Your task to perform on an android device: empty trash in google photos Image 0: 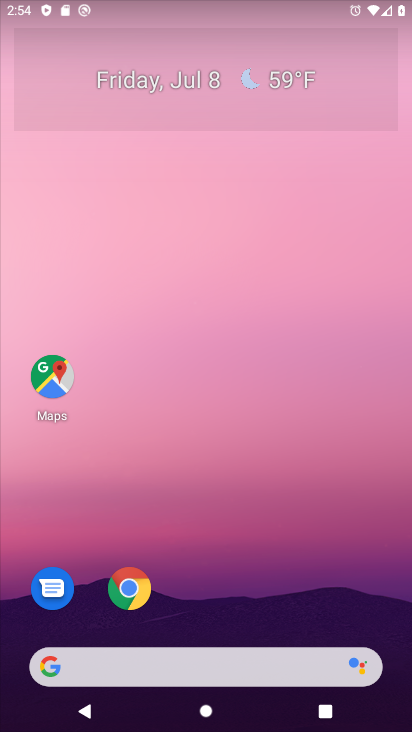
Step 0: drag from (265, 607) to (331, 192)
Your task to perform on an android device: empty trash in google photos Image 1: 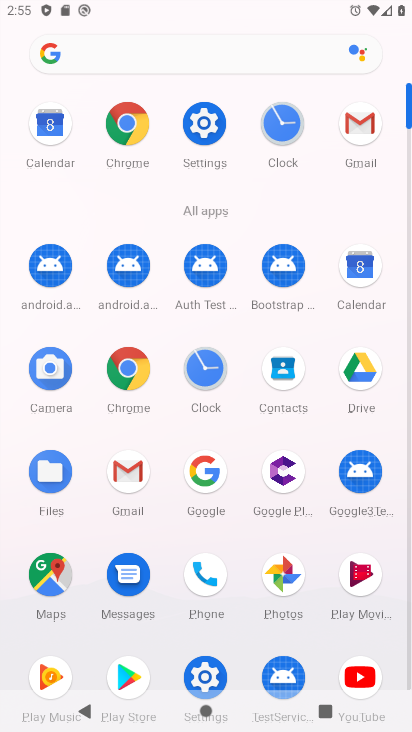
Step 1: click (270, 568)
Your task to perform on an android device: empty trash in google photos Image 2: 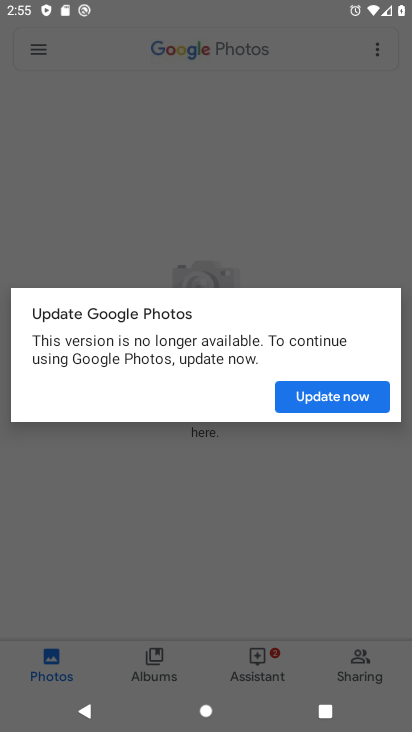
Step 2: click (343, 395)
Your task to perform on an android device: empty trash in google photos Image 3: 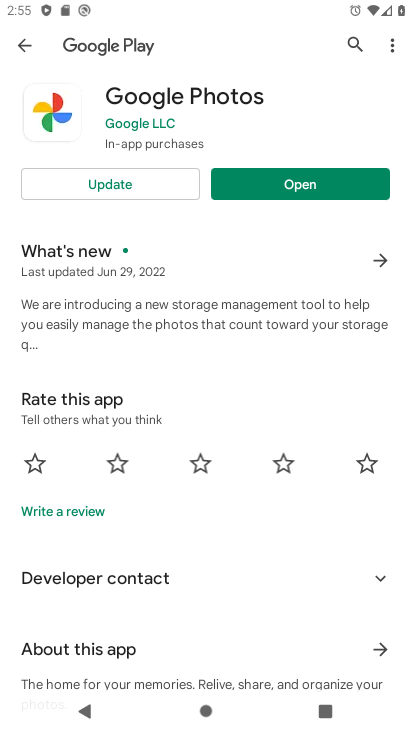
Step 3: click (280, 190)
Your task to perform on an android device: empty trash in google photos Image 4: 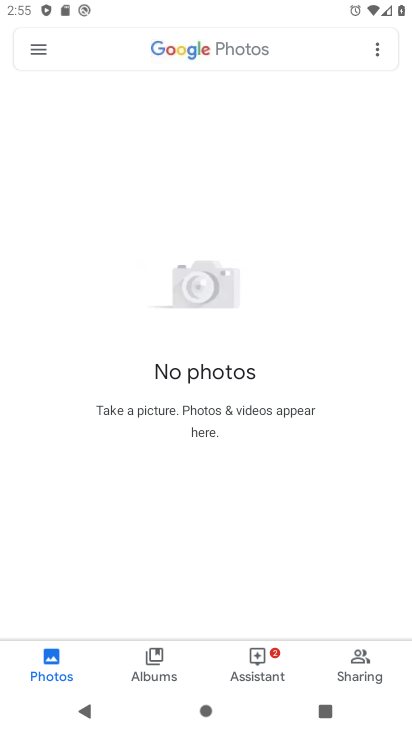
Step 4: click (45, 40)
Your task to perform on an android device: empty trash in google photos Image 5: 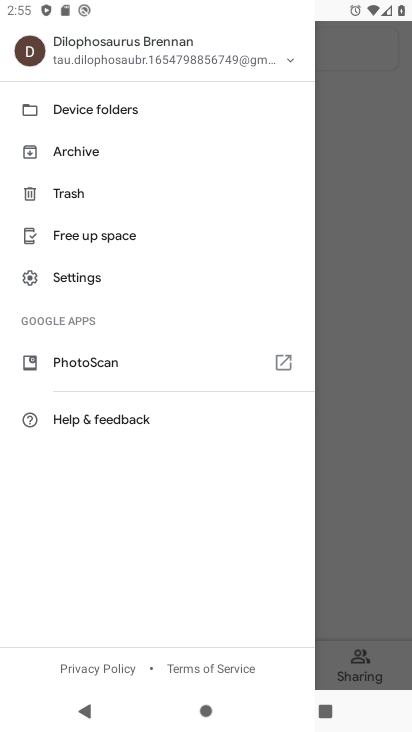
Step 5: click (89, 193)
Your task to perform on an android device: empty trash in google photos Image 6: 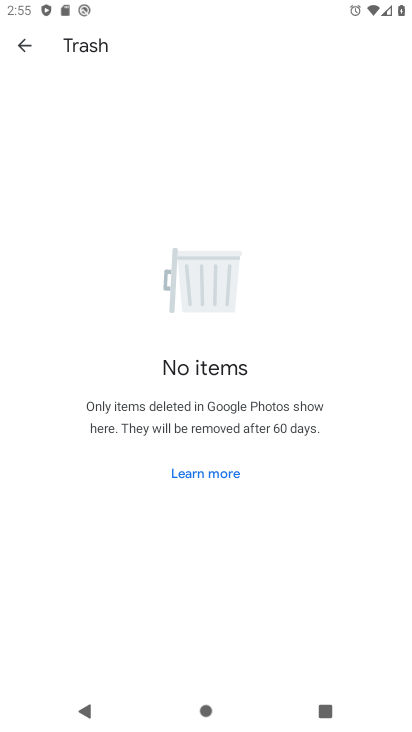
Step 6: task complete